Your task to perform on an android device: Go to network settings Image 0: 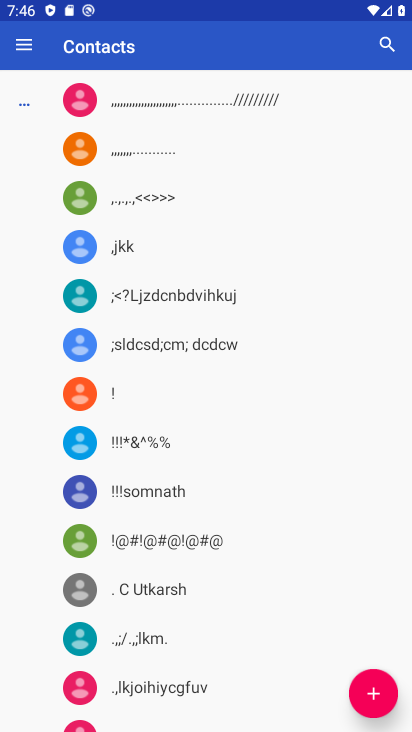
Step 0: press home button
Your task to perform on an android device: Go to network settings Image 1: 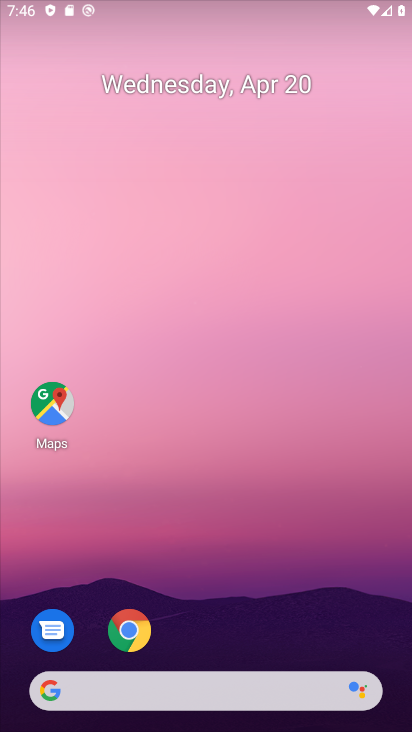
Step 1: click (174, 224)
Your task to perform on an android device: Go to network settings Image 2: 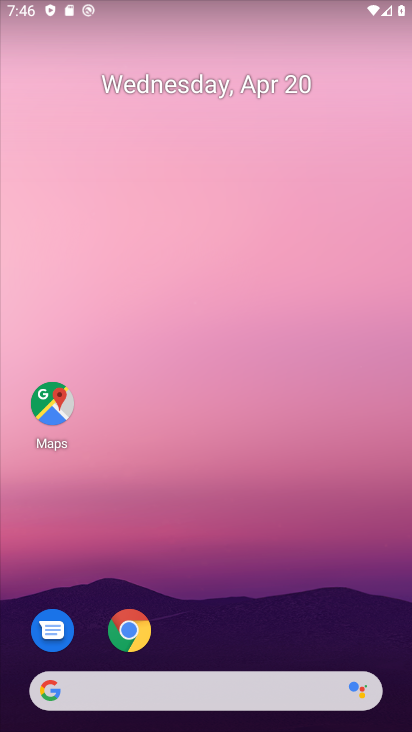
Step 2: drag from (242, 593) to (237, 175)
Your task to perform on an android device: Go to network settings Image 3: 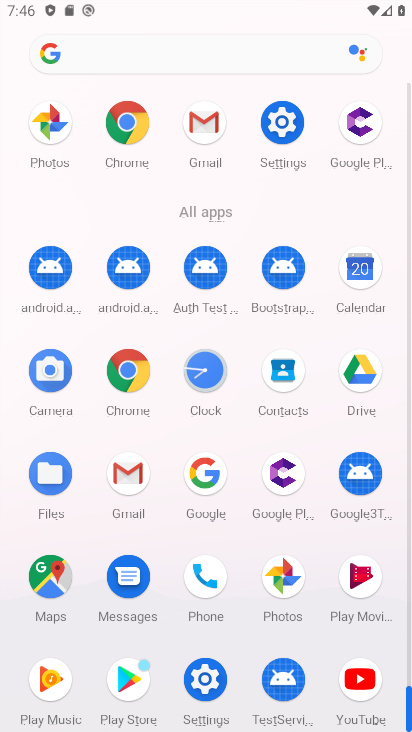
Step 3: click (280, 136)
Your task to perform on an android device: Go to network settings Image 4: 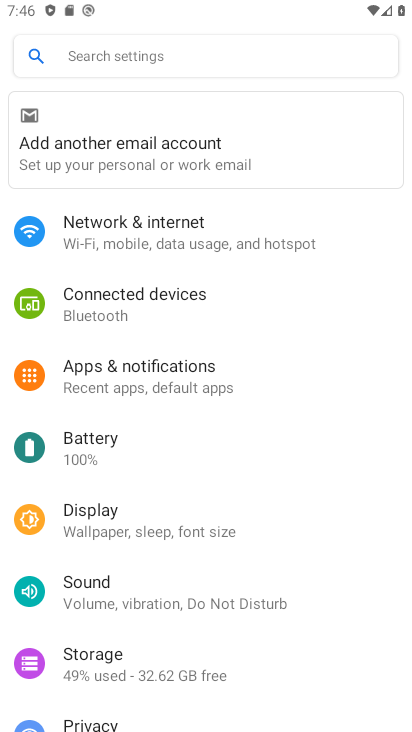
Step 4: click (166, 253)
Your task to perform on an android device: Go to network settings Image 5: 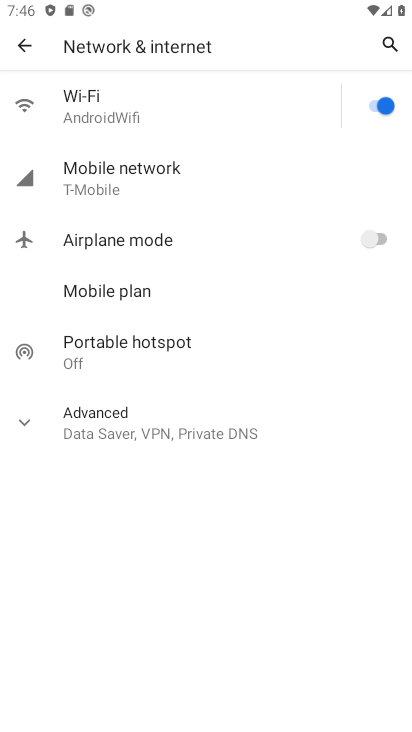
Step 5: click (162, 186)
Your task to perform on an android device: Go to network settings Image 6: 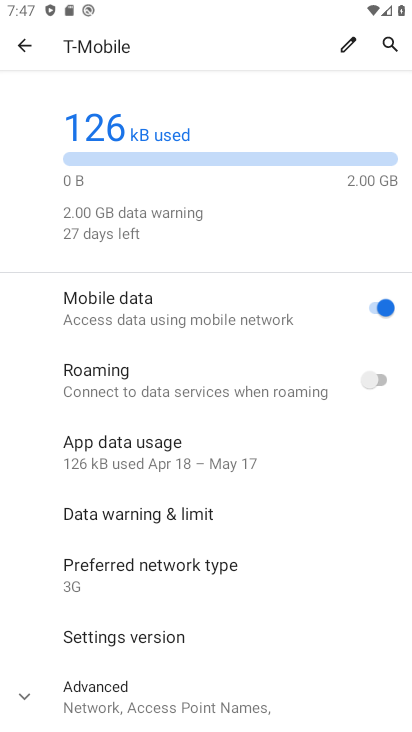
Step 6: task complete